Your task to perform on an android device: set the timer Image 0: 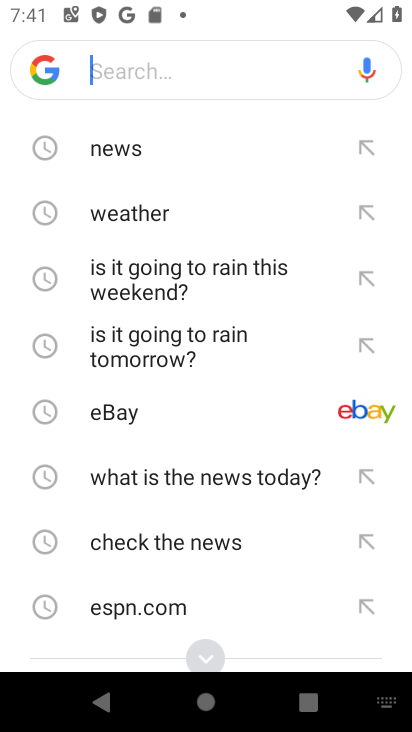
Step 0: press home button
Your task to perform on an android device: set the timer Image 1: 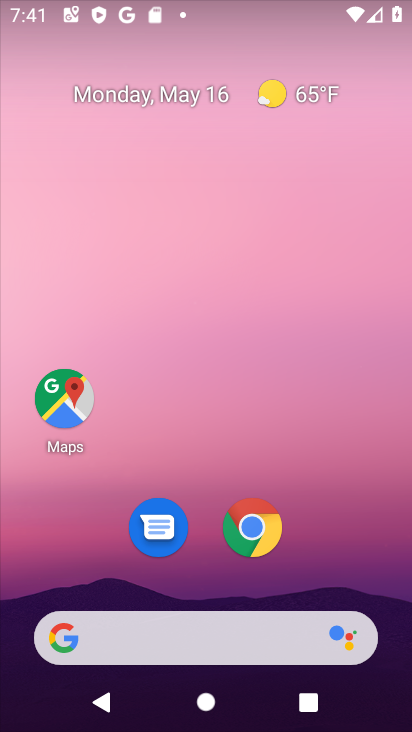
Step 1: drag from (293, 530) to (302, 158)
Your task to perform on an android device: set the timer Image 2: 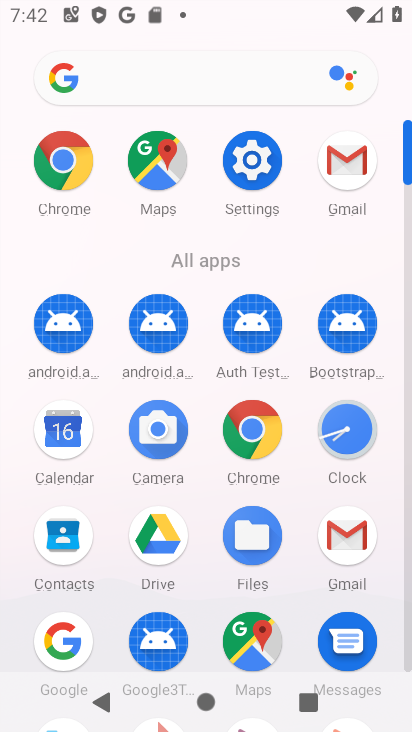
Step 2: click (359, 428)
Your task to perform on an android device: set the timer Image 3: 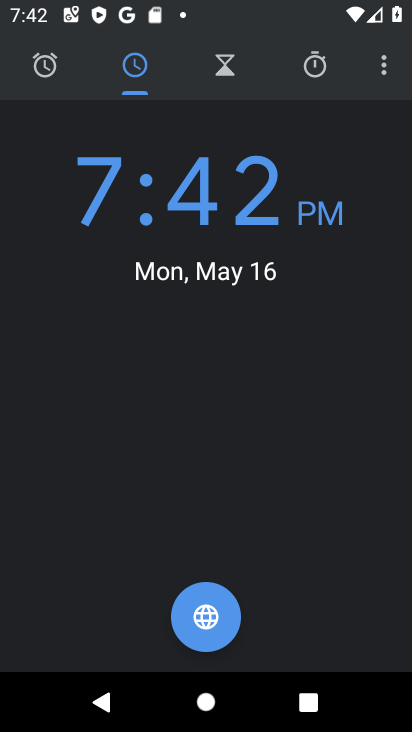
Step 3: click (221, 59)
Your task to perform on an android device: set the timer Image 4: 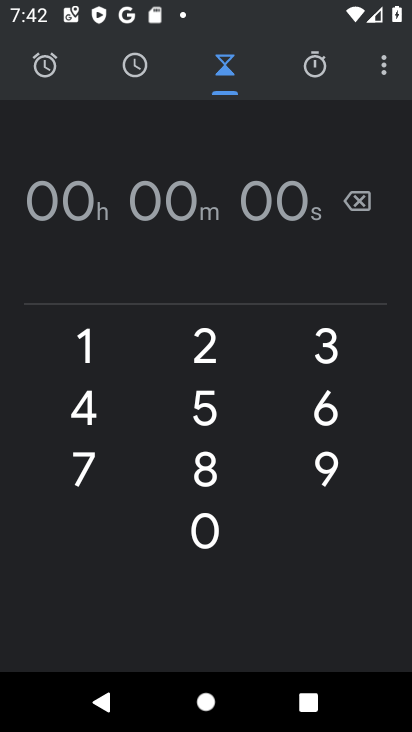
Step 4: click (143, 189)
Your task to perform on an android device: set the timer Image 5: 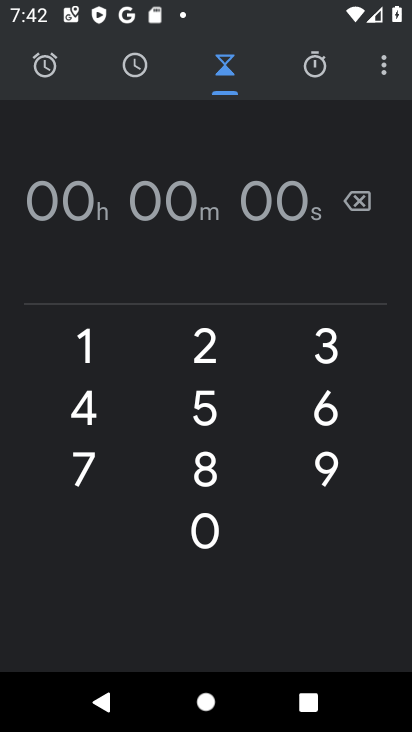
Step 5: type "87878788"
Your task to perform on an android device: set the timer Image 6: 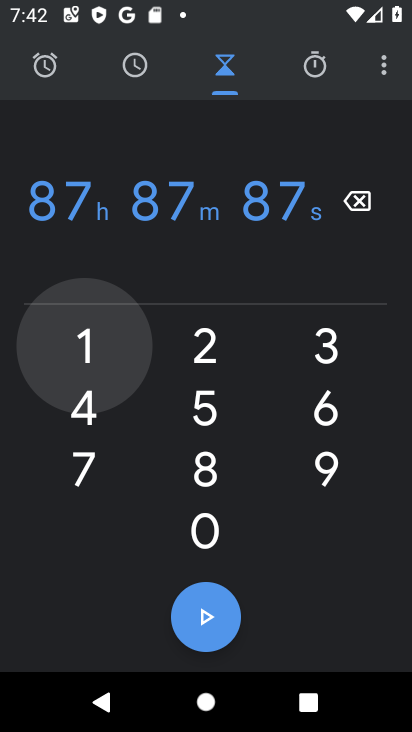
Step 6: click (197, 618)
Your task to perform on an android device: set the timer Image 7: 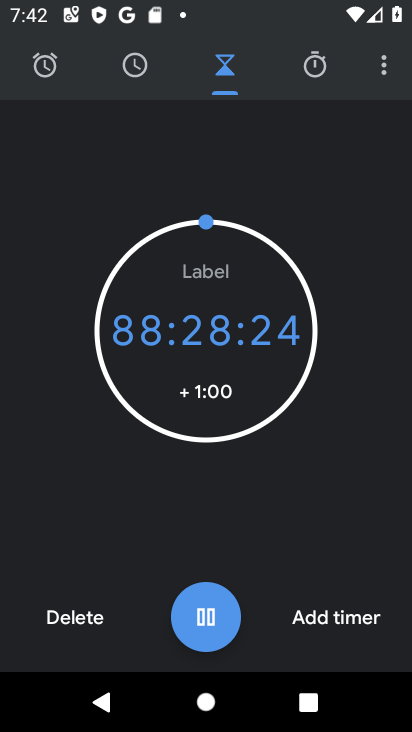
Step 7: task complete